Your task to perform on an android device: turn notification dots off Image 0: 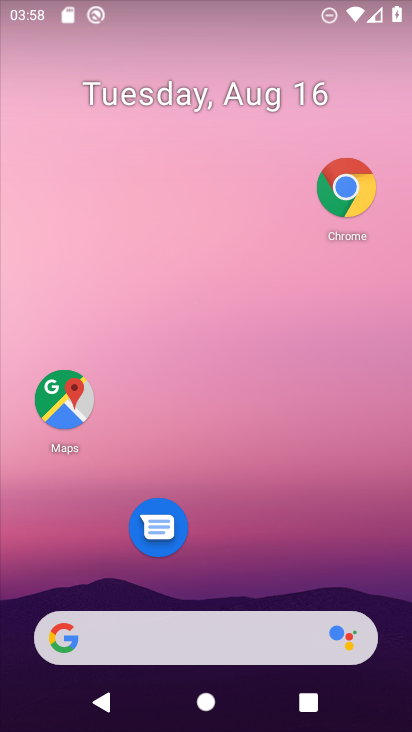
Step 0: drag from (231, 588) to (298, 29)
Your task to perform on an android device: turn notification dots off Image 1: 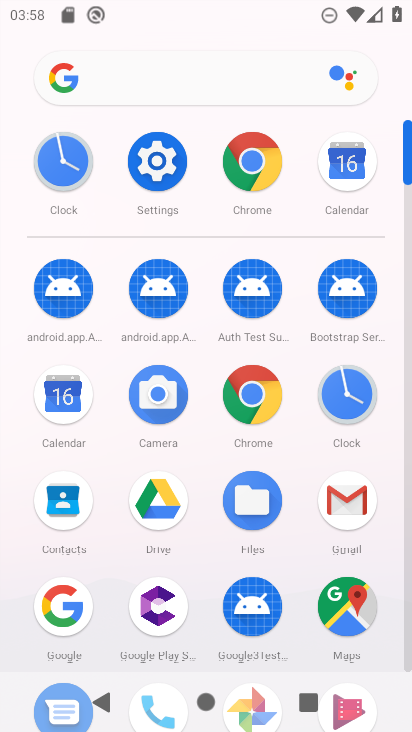
Step 1: click (154, 159)
Your task to perform on an android device: turn notification dots off Image 2: 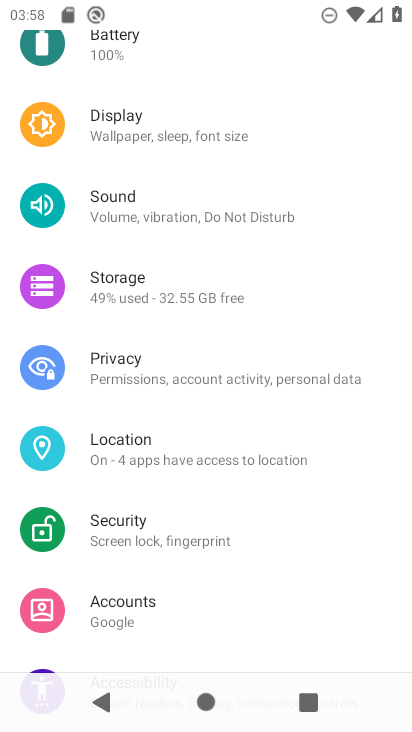
Step 2: drag from (97, 265) to (70, 657)
Your task to perform on an android device: turn notification dots off Image 3: 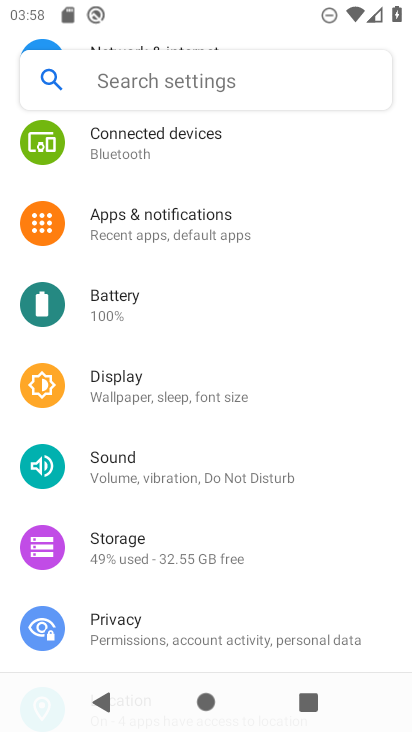
Step 3: click (118, 221)
Your task to perform on an android device: turn notification dots off Image 4: 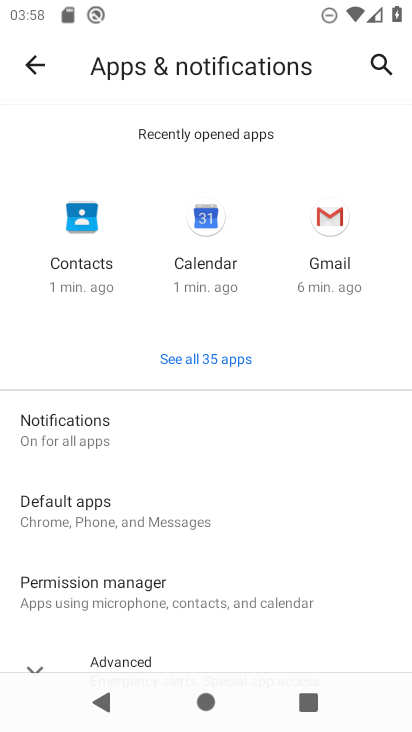
Step 4: click (113, 427)
Your task to perform on an android device: turn notification dots off Image 5: 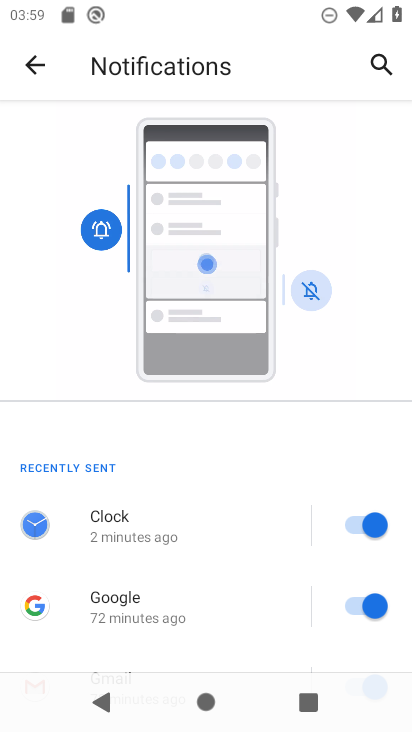
Step 5: drag from (220, 630) to (251, 130)
Your task to perform on an android device: turn notification dots off Image 6: 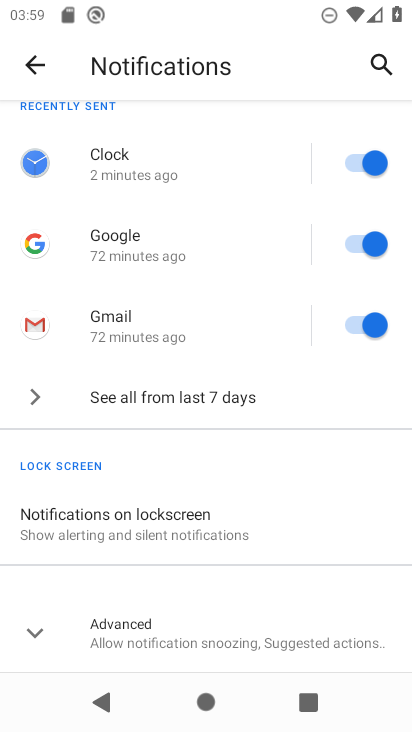
Step 6: click (29, 623)
Your task to perform on an android device: turn notification dots off Image 7: 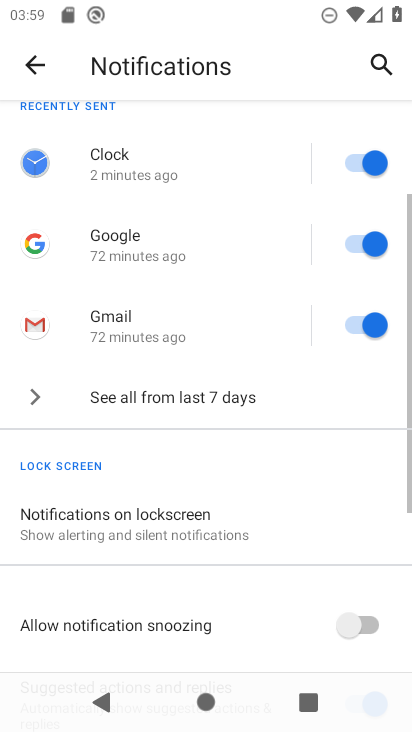
Step 7: task complete